Your task to perform on an android device: turn on location history Image 0: 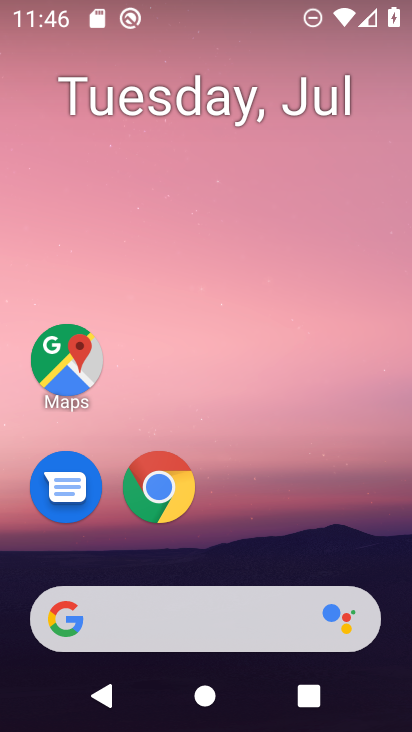
Step 0: drag from (376, 523) to (284, 110)
Your task to perform on an android device: turn on location history Image 1: 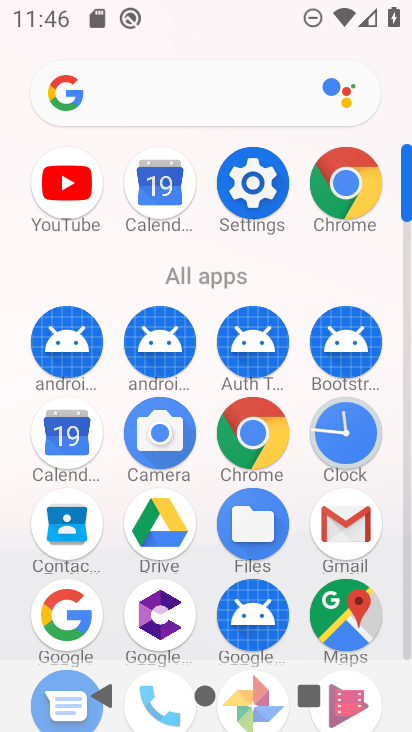
Step 1: click (338, 596)
Your task to perform on an android device: turn on location history Image 2: 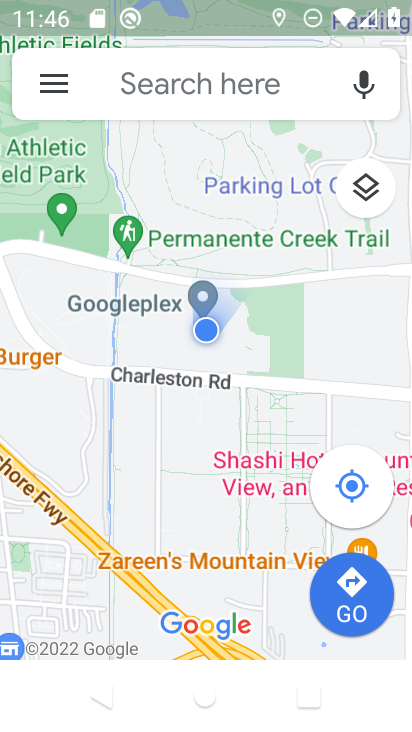
Step 2: click (49, 92)
Your task to perform on an android device: turn on location history Image 3: 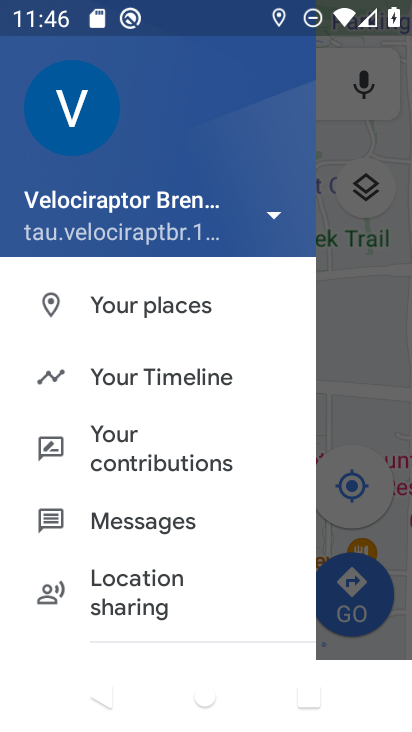
Step 3: click (153, 375)
Your task to perform on an android device: turn on location history Image 4: 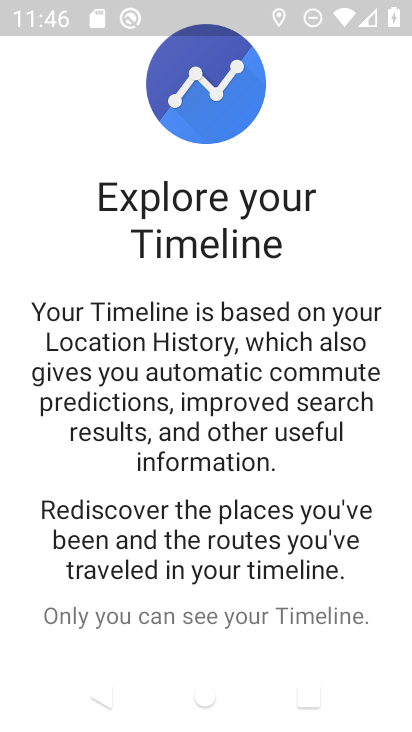
Step 4: drag from (307, 635) to (259, 249)
Your task to perform on an android device: turn on location history Image 5: 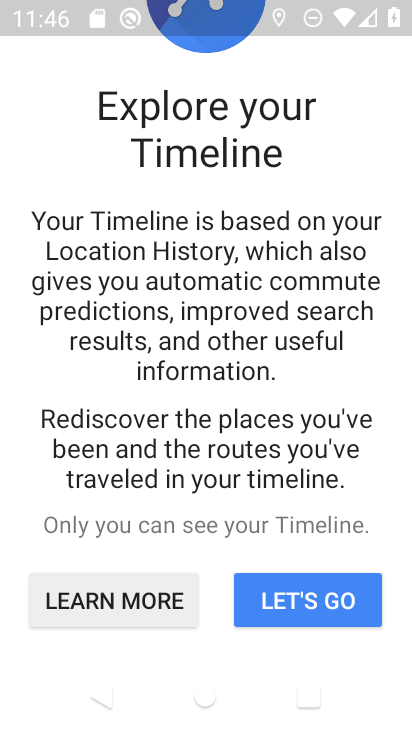
Step 5: click (336, 617)
Your task to perform on an android device: turn on location history Image 6: 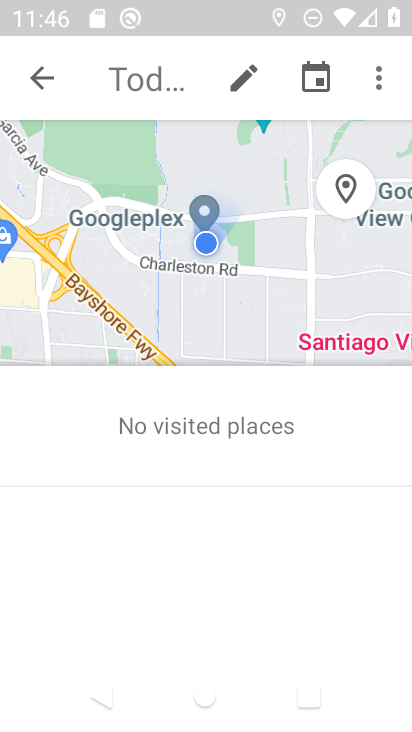
Step 6: click (372, 88)
Your task to perform on an android device: turn on location history Image 7: 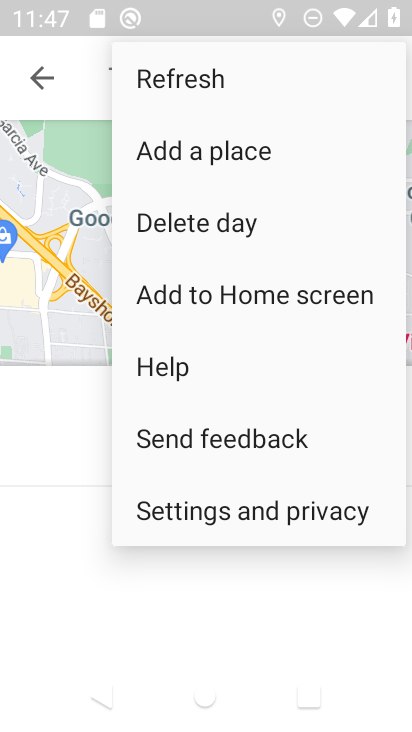
Step 7: click (276, 498)
Your task to perform on an android device: turn on location history Image 8: 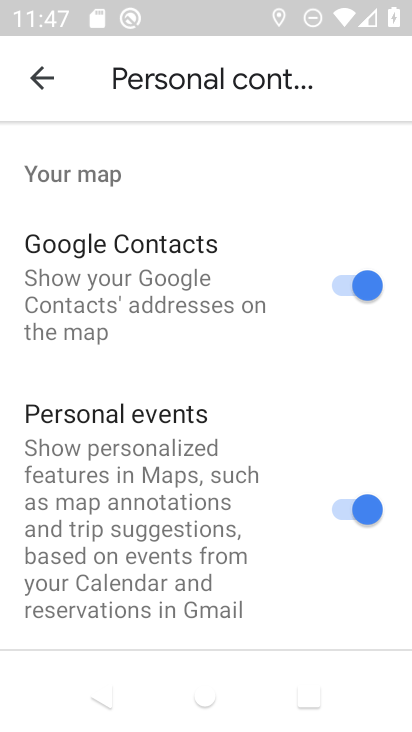
Step 8: task complete